Your task to perform on an android device: Open Chrome and go to the settings page Image 0: 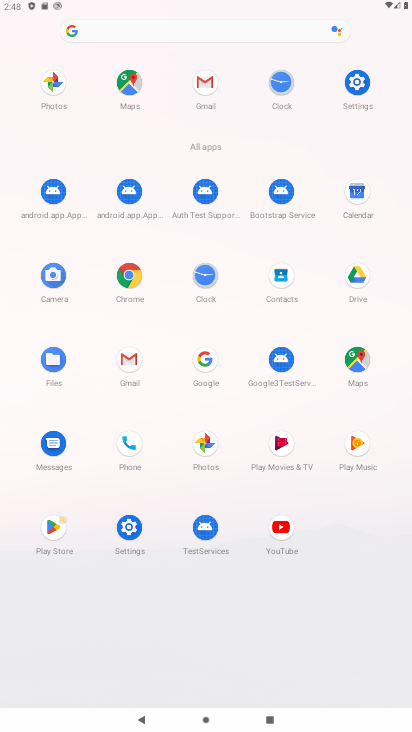
Step 0: press home button
Your task to perform on an android device: Open Chrome and go to the settings page Image 1: 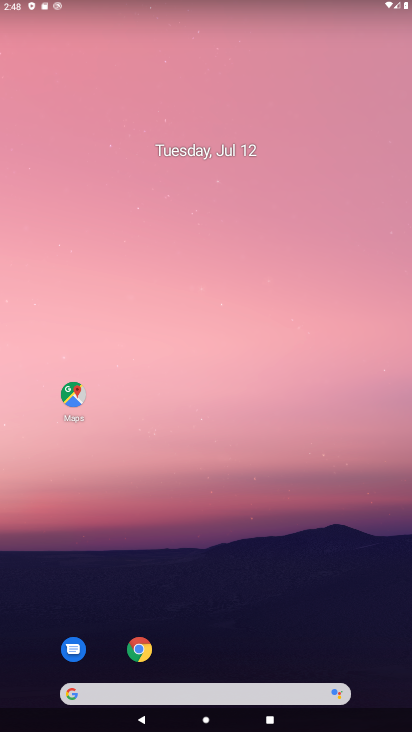
Step 1: drag from (174, 689) to (209, 53)
Your task to perform on an android device: Open Chrome and go to the settings page Image 2: 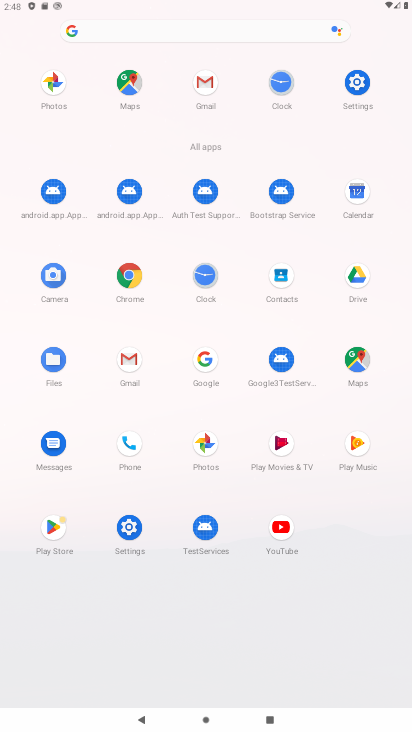
Step 2: click (129, 283)
Your task to perform on an android device: Open Chrome and go to the settings page Image 3: 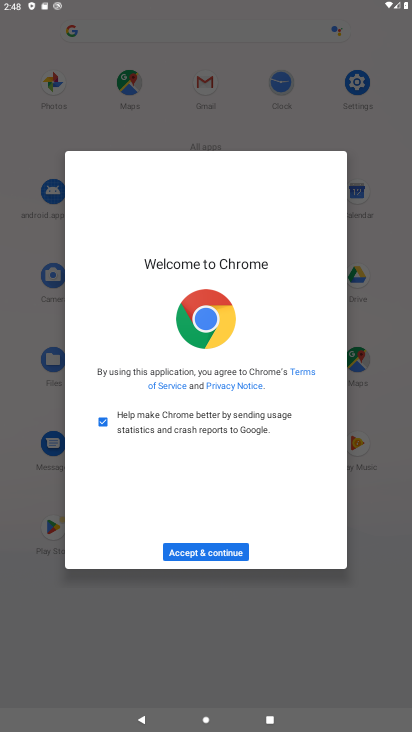
Step 3: click (227, 551)
Your task to perform on an android device: Open Chrome and go to the settings page Image 4: 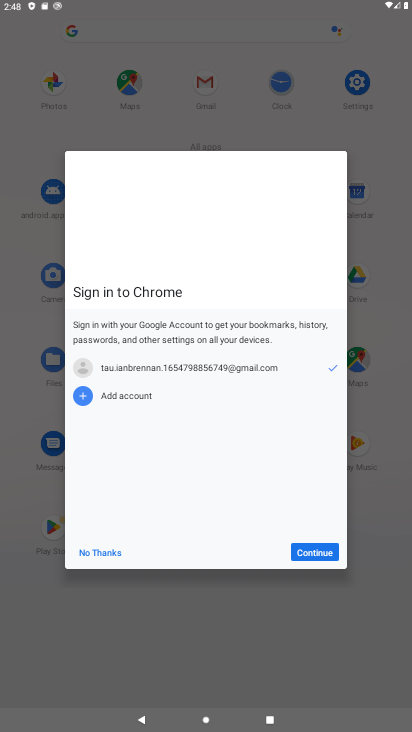
Step 4: click (314, 557)
Your task to perform on an android device: Open Chrome and go to the settings page Image 5: 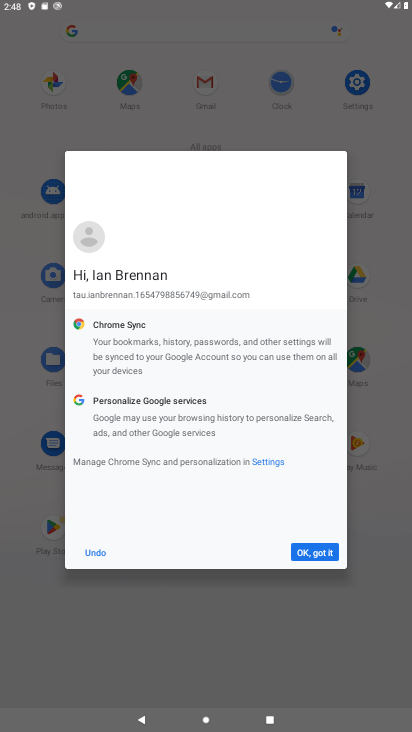
Step 5: click (316, 552)
Your task to perform on an android device: Open Chrome and go to the settings page Image 6: 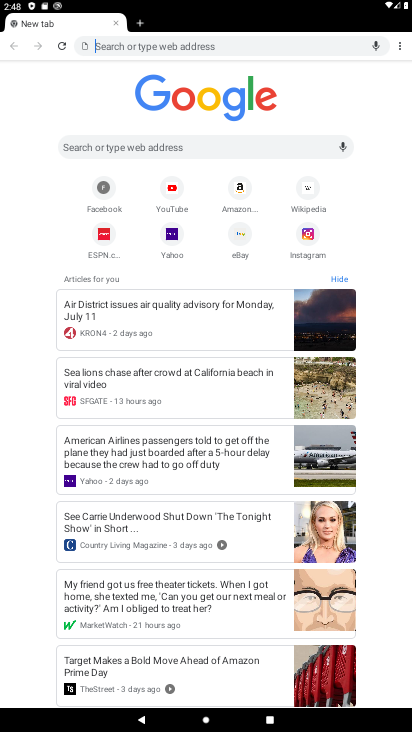
Step 6: task complete